Your task to perform on an android device: What's the weather going to be this weekend? Image 0: 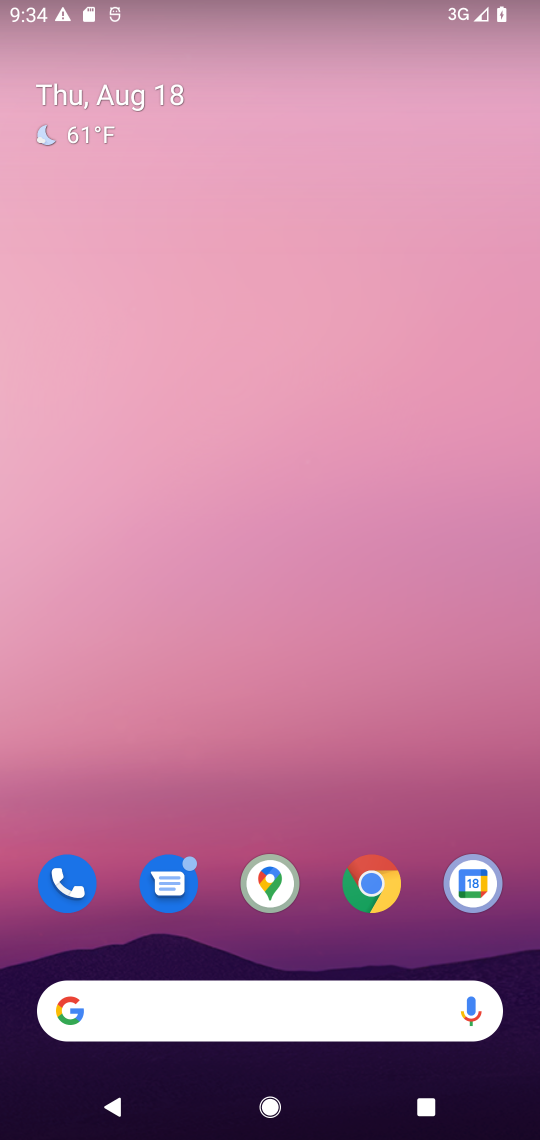
Step 0: type "What's the weather going to be this weekend?"
Your task to perform on an android device: What's the weather going to be this weekend? Image 1: 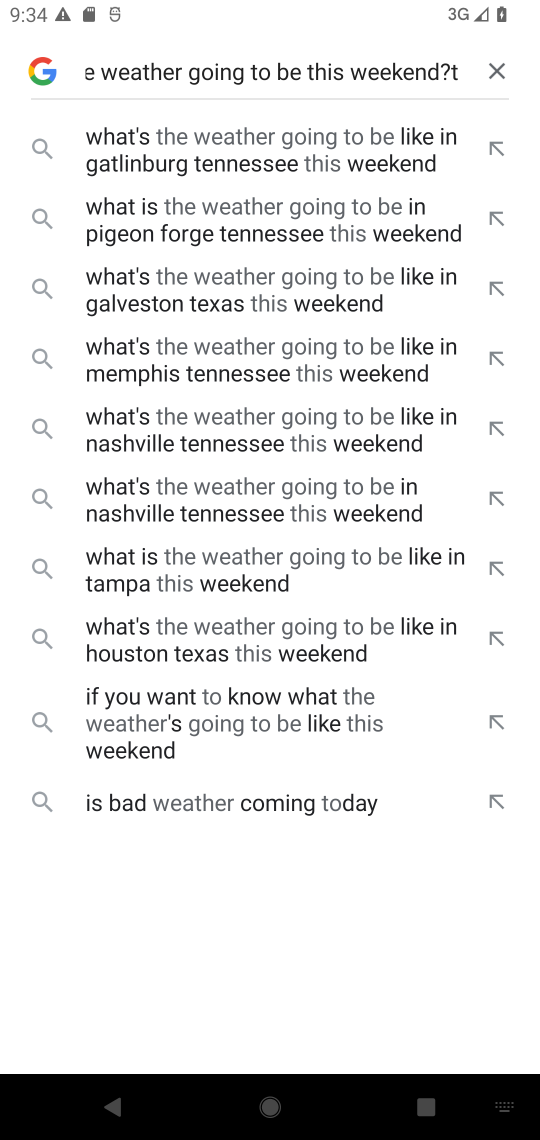
Step 1: type ""
Your task to perform on an android device: What's the weather going to be this weekend? Image 2: 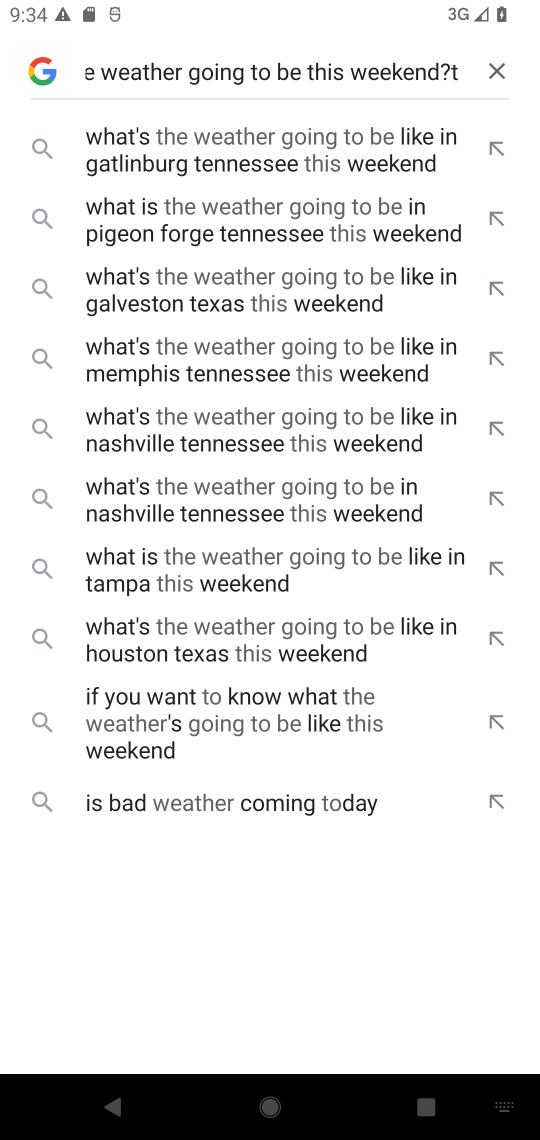
Step 2: type ""
Your task to perform on an android device: What's the weather going to be this weekend? Image 3: 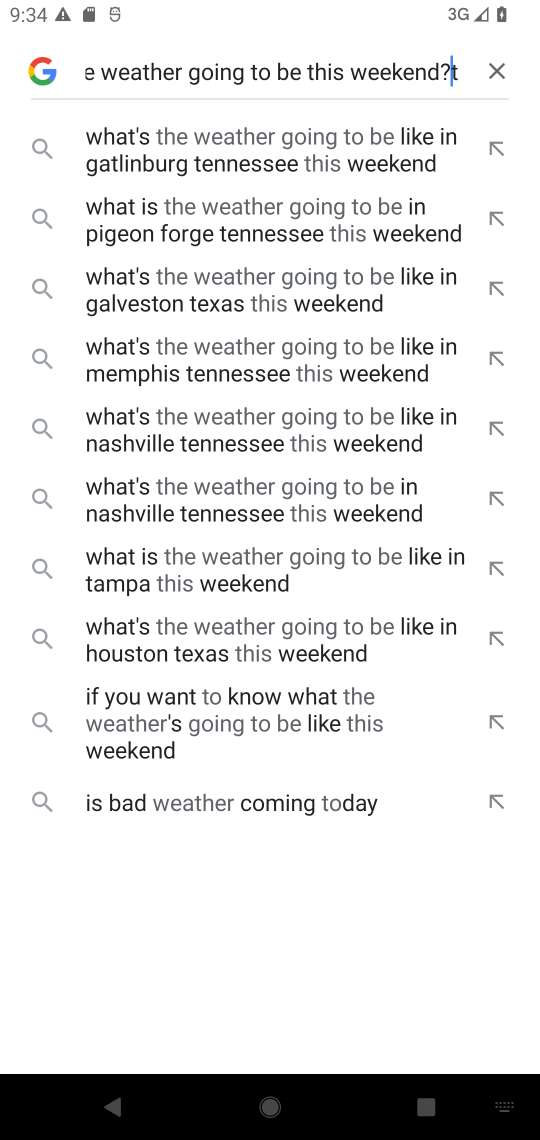
Step 3: task complete